Your task to perform on an android device: Search for vegetarian restaurants on Maps Image 0: 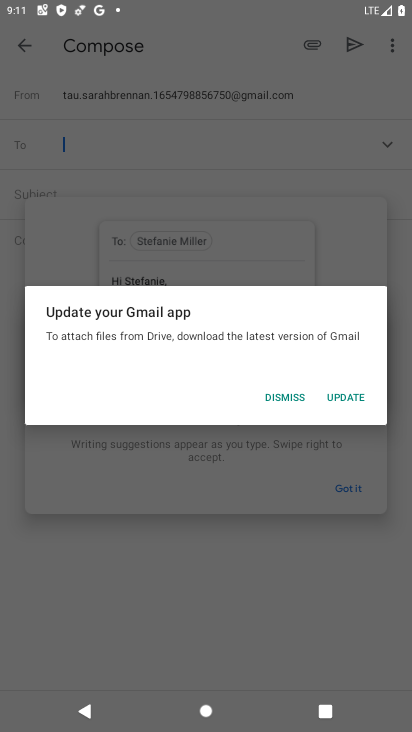
Step 0: press home button
Your task to perform on an android device: Search for vegetarian restaurants on Maps Image 1: 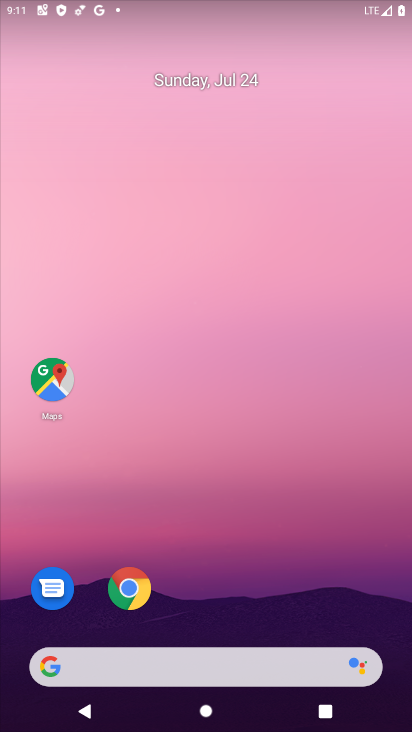
Step 1: click (53, 355)
Your task to perform on an android device: Search for vegetarian restaurants on Maps Image 2: 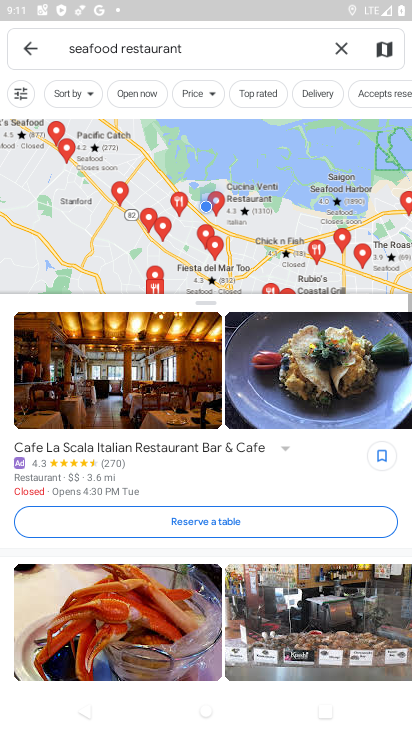
Step 2: click (339, 39)
Your task to perform on an android device: Search for vegetarian restaurants on Maps Image 3: 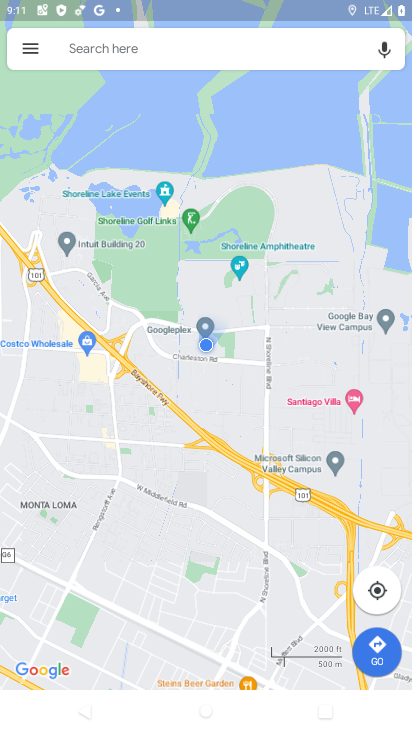
Step 3: click (241, 41)
Your task to perform on an android device: Search for vegetarian restaurants on Maps Image 4: 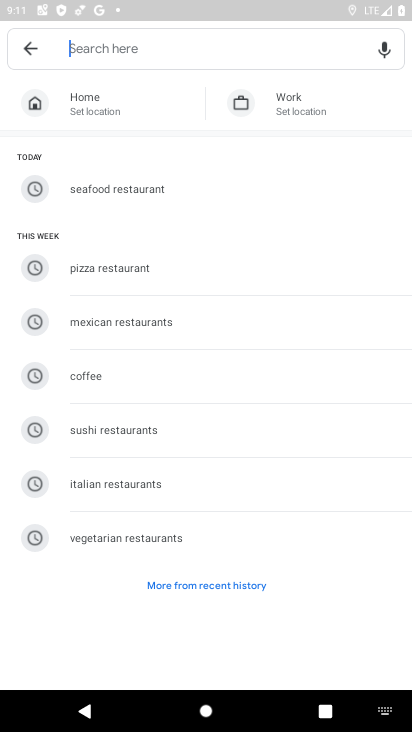
Step 4: click (180, 534)
Your task to perform on an android device: Search for vegetarian restaurants on Maps Image 5: 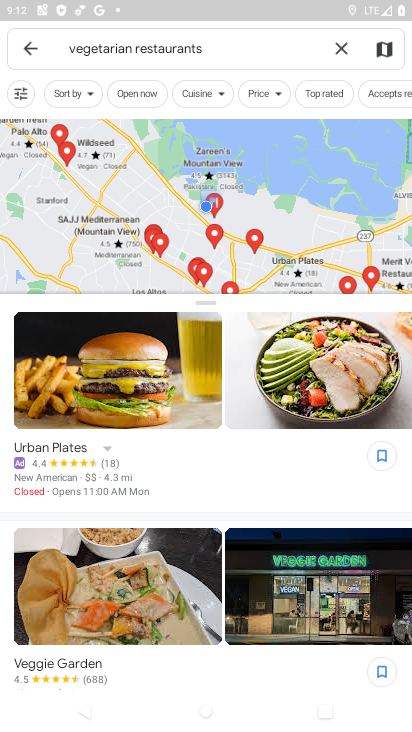
Step 5: task complete